Your task to perform on an android device: turn notification dots off Image 0: 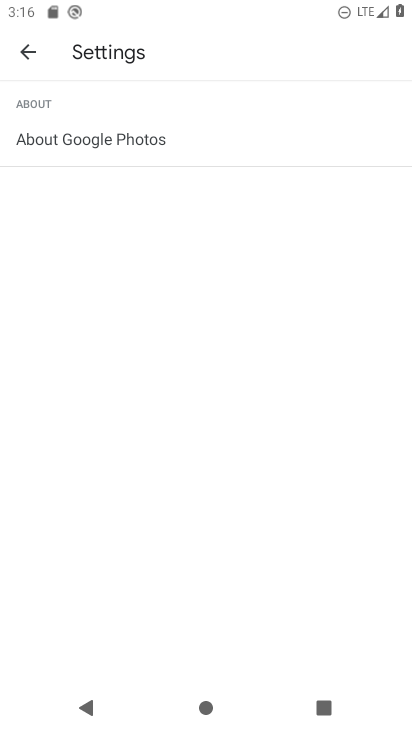
Step 0: press home button
Your task to perform on an android device: turn notification dots off Image 1: 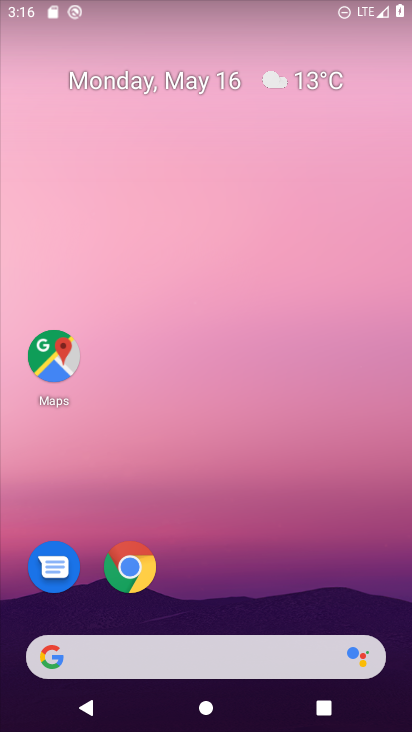
Step 1: drag from (265, 598) to (191, 77)
Your task to perform on an android device: turn notification dots off Image 2: 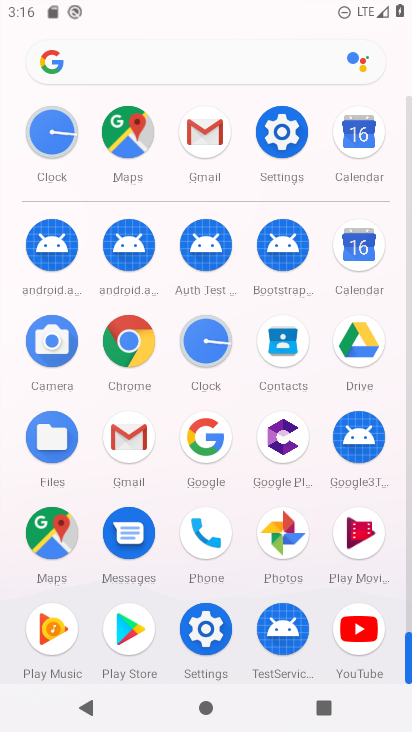
Step 2: click (217, 627)
Your task to perform on an android device: turn notification dots off Image 3: 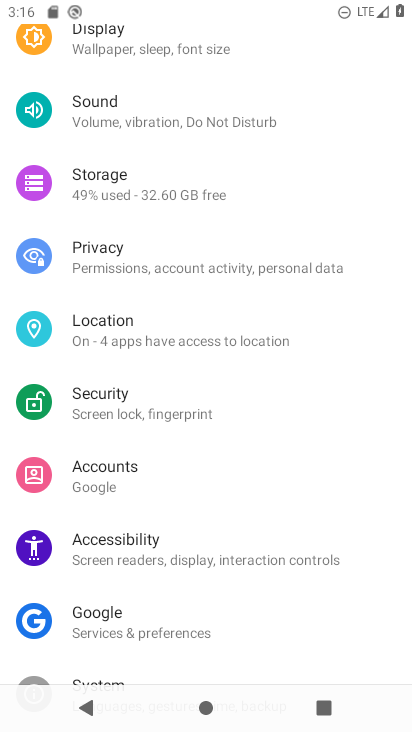
Step 3: drag from (167, 488) to (144, 428)
Your task to perform on an android device: turn notification dots off Image 4: 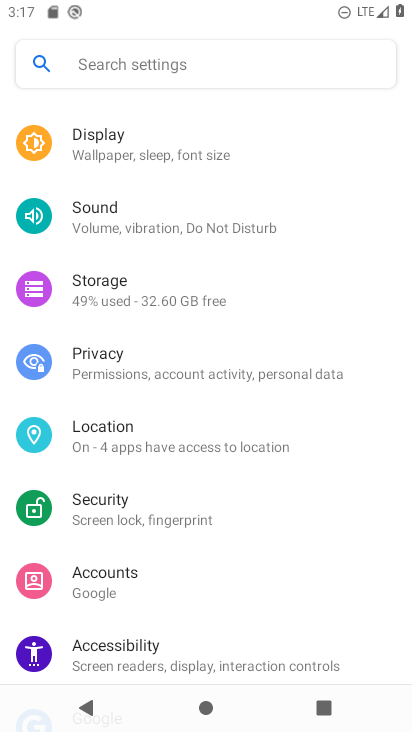
Step 4: drag from (117, 145) to (124, 508)
Your task to perform on an android device: turn notification dots off Image 5: 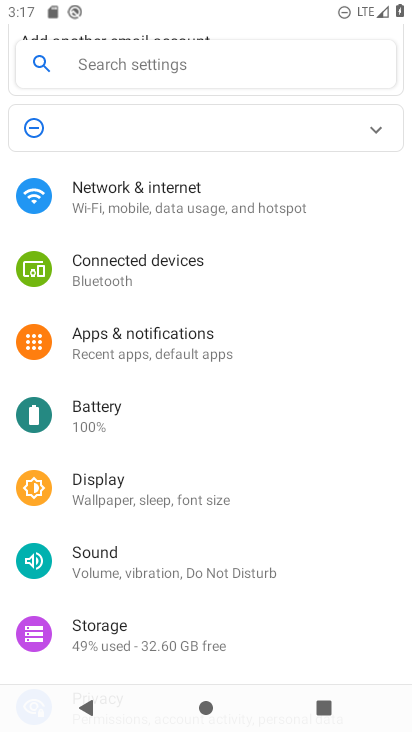
Step 5: click (149, 335)
Your task to perform on an android device: turn notification dots off Image 6: 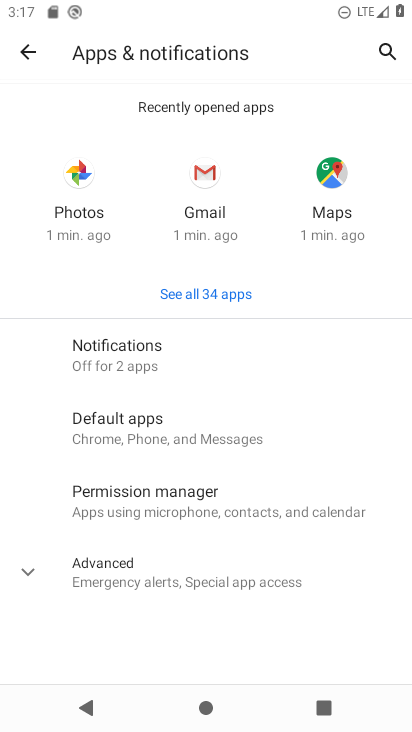
Step 6: click (193, 572)
Your task to perform on an android device: turn notification dots off Image 7: 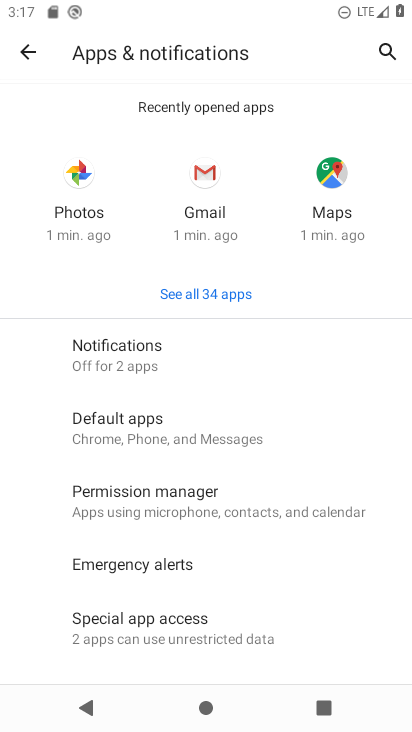
Step 7: click (168, 371)
Your task to perform on an android device: turn notification dots off Image 8: 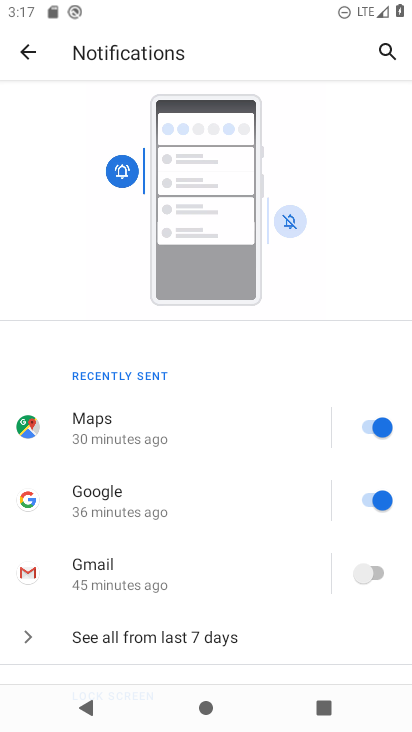
Step 8: drag from (198, 599) to (184, 350)
Your task to perform on an android device: turn notification dots off Image 9: 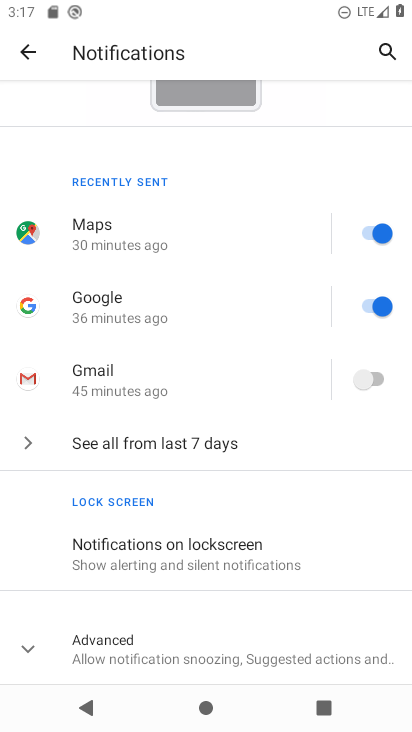
Step 9: click (182, 626)
Your task to perform on an android device: turn notification dots off Image 10: 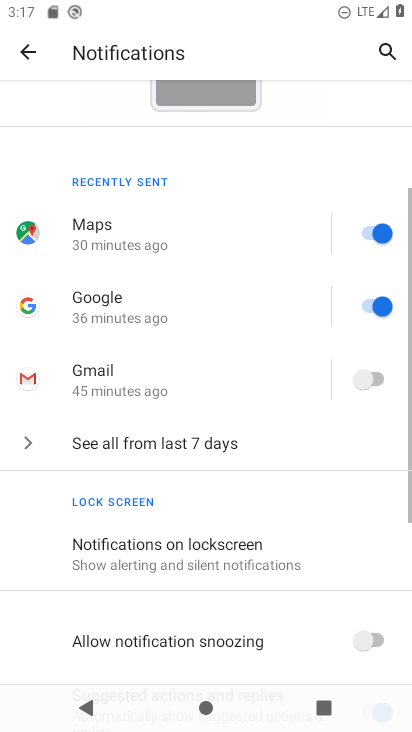
Step 10: drag from (180, 625) to (183, 301)
Your task to perform on an android device: turn notification dots off Image 11: 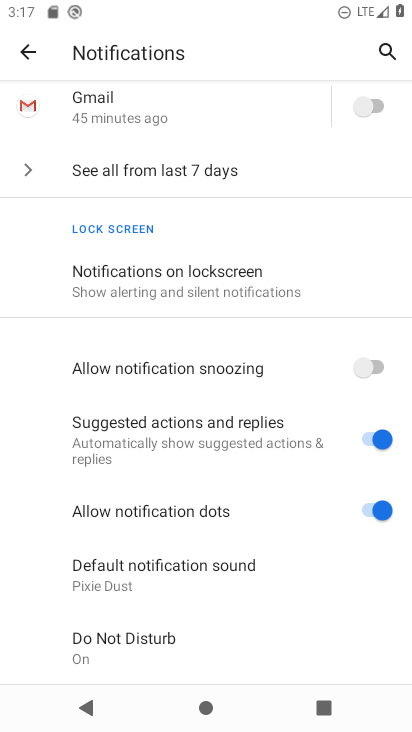
Step 11: click (382, 515)
Your task to perform on an android device: turn notification dots off Image 12: 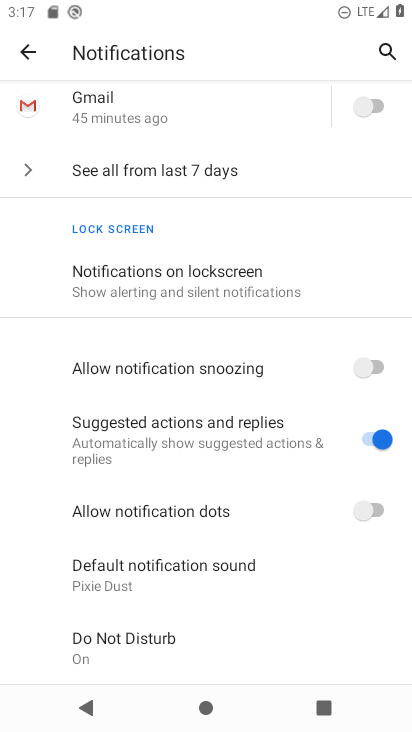
Step 12: task complete